Your task to perform on an android device: find which apps use the phone's location Image 0: 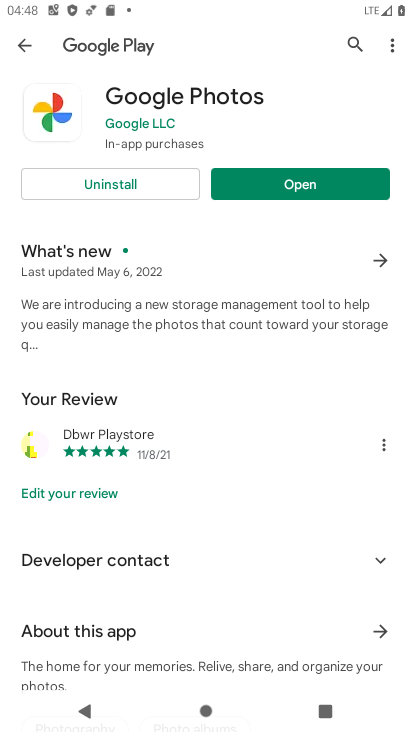
Step 0: press back button
Your task to perform on an android device: find which apps use the phone's location Image 1: 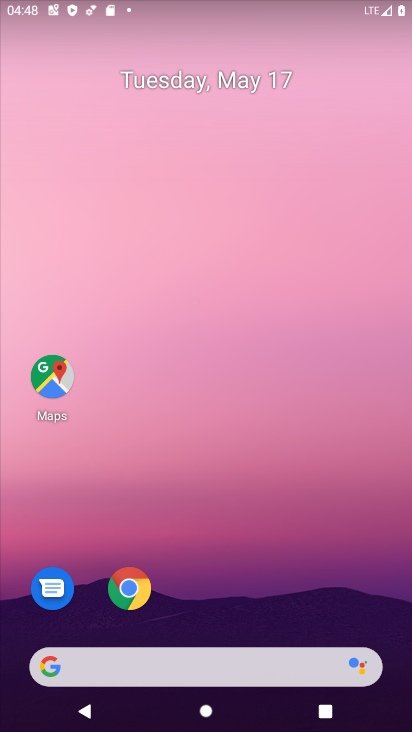
Step 1: drag from (227, 579) to (195, 134)
Your task to perform on an android device: find which apps use the phone's location Image 2: 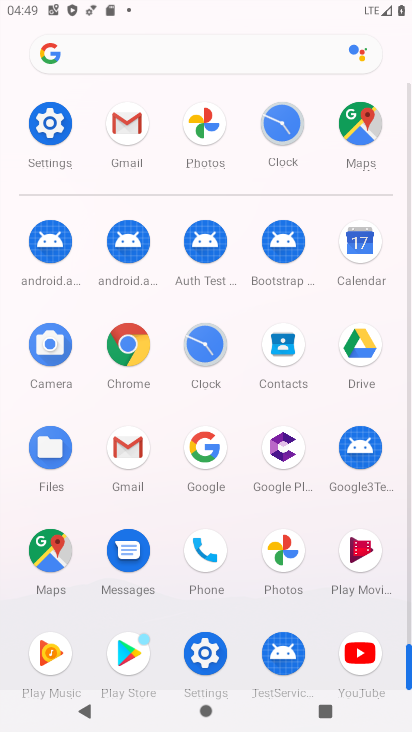
Step 2: click (49, 123)
Your task to perform on an android device: find which apps use the phone's location Image 3: 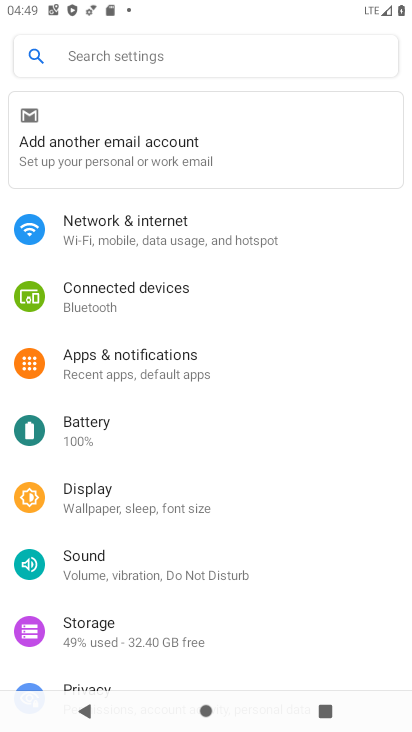
Step 3: drag from (120, 571) to (152, 460)
Your task to perform on an android device: find which apps use the phone's location Image 4: 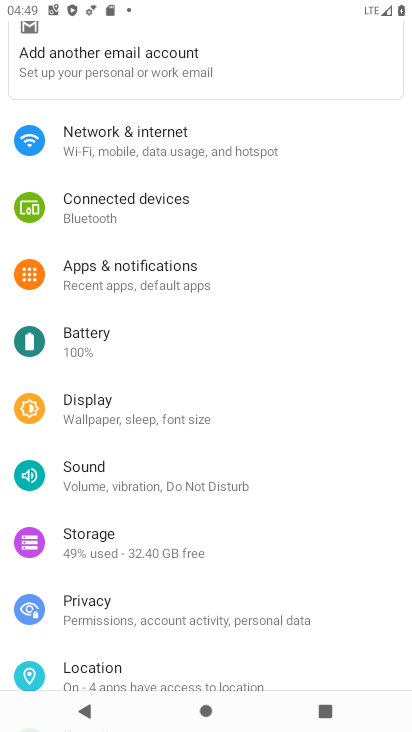
Step 4: drag from (107, 597) to (168, 458)
Your task to perform on an android device: find which apps use the phone's location Image 5: 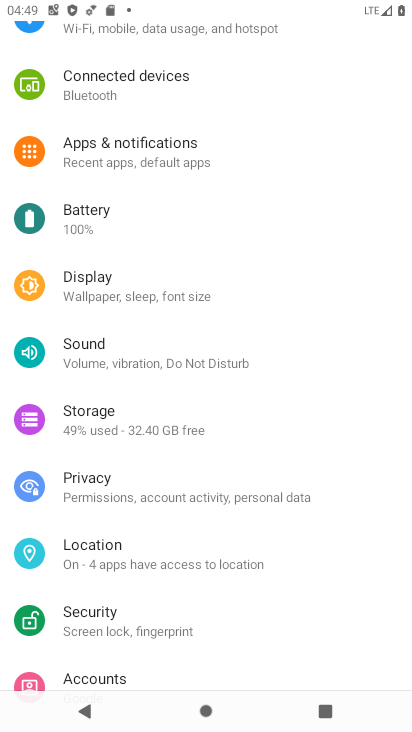
Step 5: click (90, 551)
Your task to perform on an android device: find which apps use the phone's location Image 6: 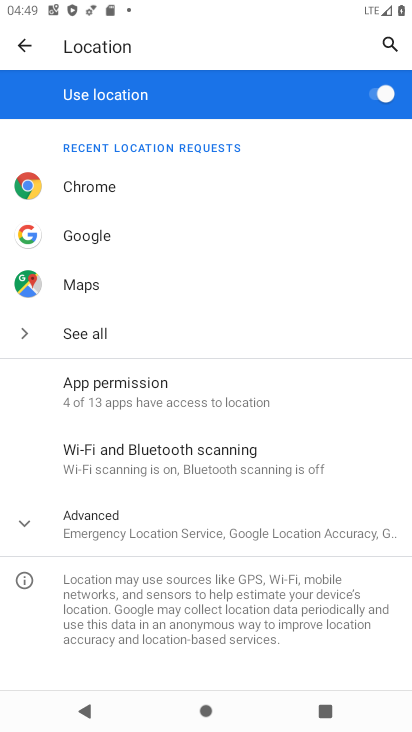
Step 6: click (112, 403)
Your task to perform on an android device: find which apps use the phone's location Image 7: 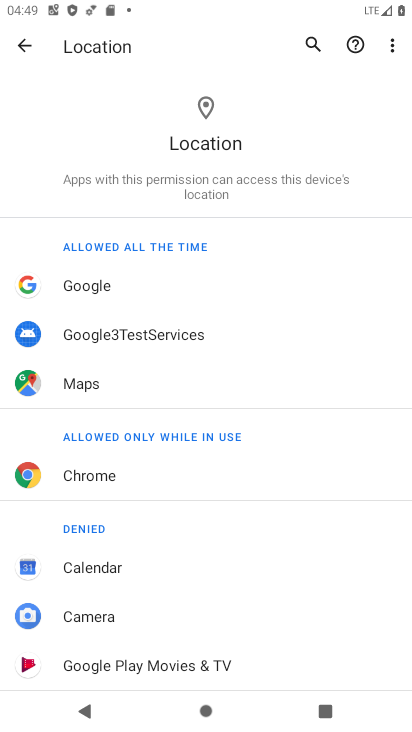
Step 7: click (75, 378)
Your task to perform on an android device: find which apps use the phone's location Image 8: 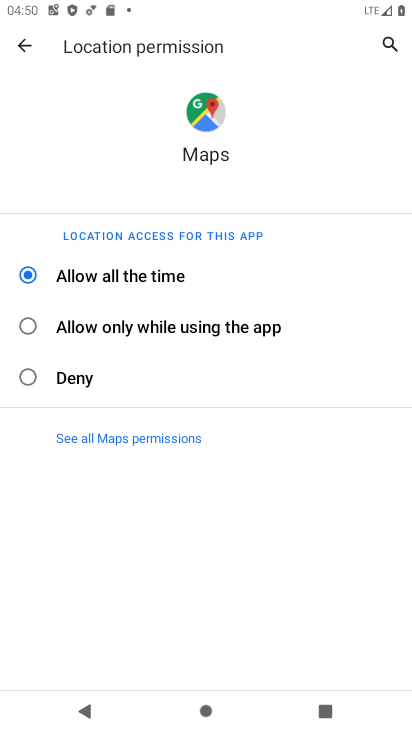
Step 8: task complete